Your task to perform on an android device: delete browsing data in the chrome app Image 0: 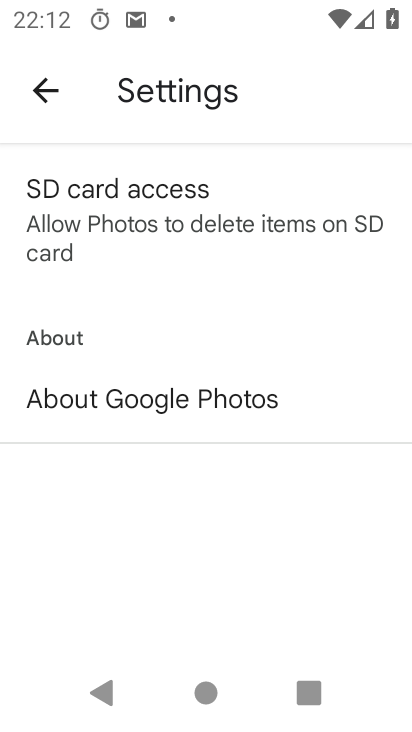
Step 0: press home button
Your task to perform on an android device: delete browsing data in the chrome app Image 1: 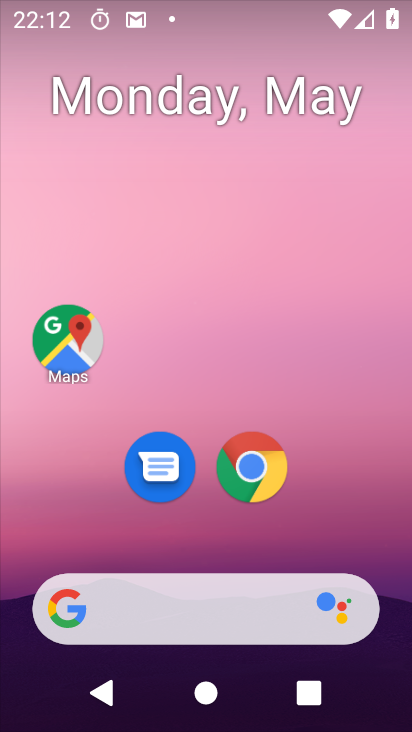
Step 1: drag from (240, 649) to (306, 109)
Your task to perform on an android device: delete browsing data in the chrome app Image 2: 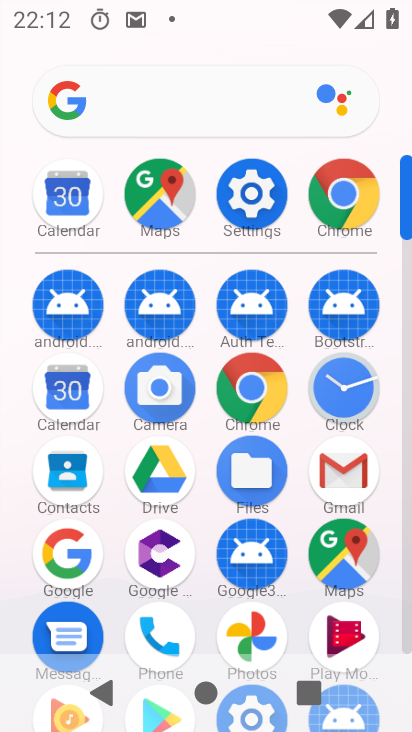
Step 2: click (340, 183)
Your task to perform on an android device: delete browsing data in the chrome app Image 3: 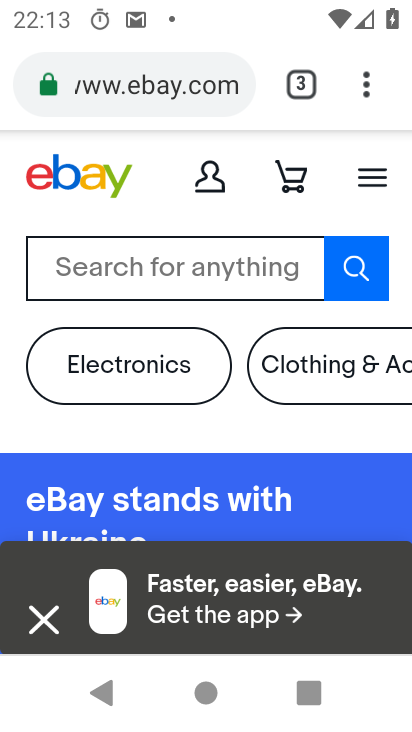
Step 3: click (363, 95)
Your task to perform on an android device: delete browsing data in the chrome app Image 4: 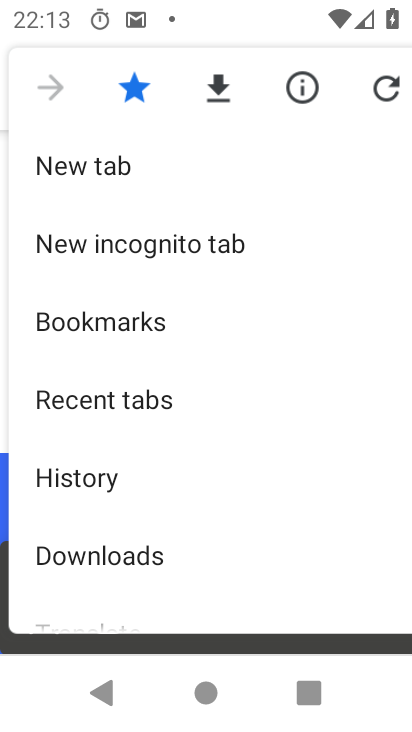
Step 4: click (90, 475)
Your task to perform on an android device: delete browsing data in the chrome app Image 5: 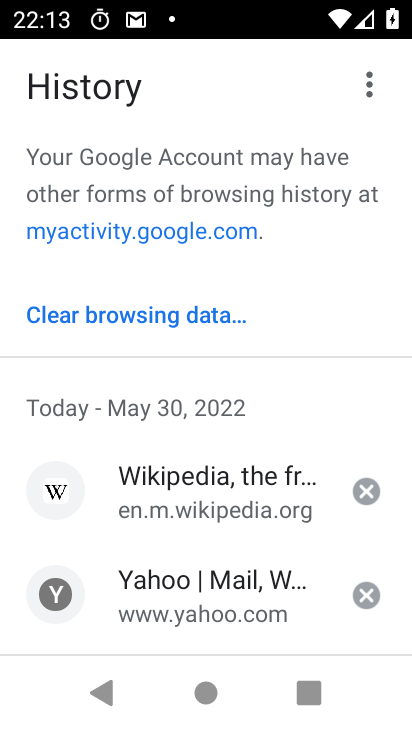
Step 5: click (106, 318)
Your task to perform on an android device: delete browsing data in the chrome app Image 6: 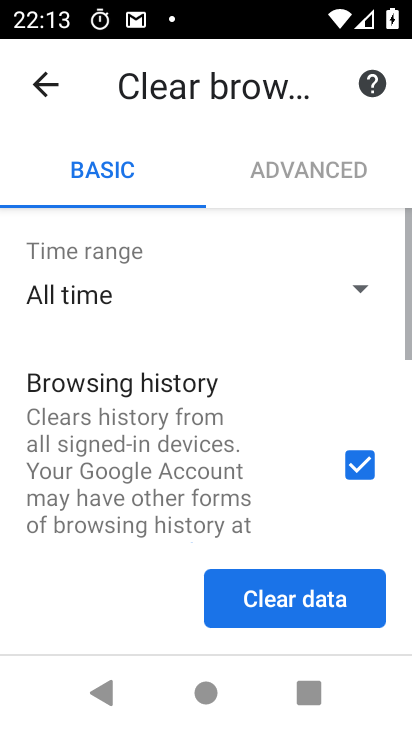
Step 6: click (295, 608)
Your task to perform on an android device: delete browsing data in the chrome app Image 7: 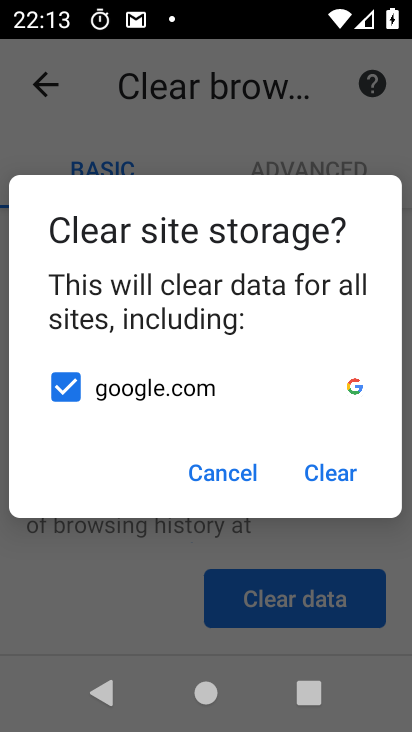
Step 7: task complete